Your task to perform on an android device: turn on the 12-hour format for clock Image 0: 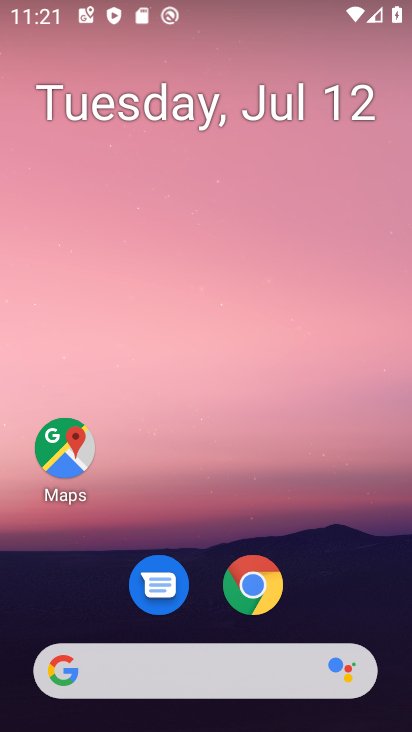
Step 0: drag from (243, 278) to (245, 15)
Your task to perform on an android device: turn on the 12-hour format for clock Image 1: 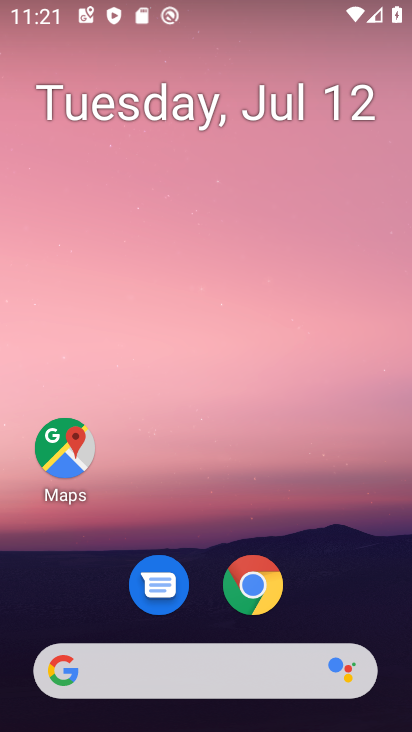
Step 1: drag from (340, 419) to (302, 19)
Your task to perform on an android device: turn on the 12-hour format for clock Image 2: 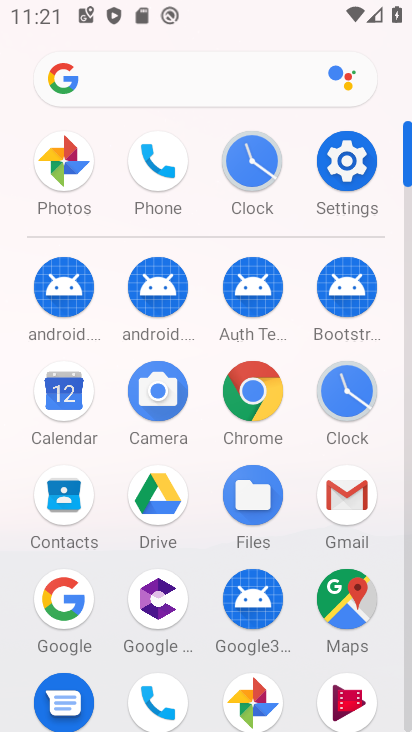
Step 2: click (251, 172)
Your task to perform on an android device: turn on the 12-hour format for clock Image 3: 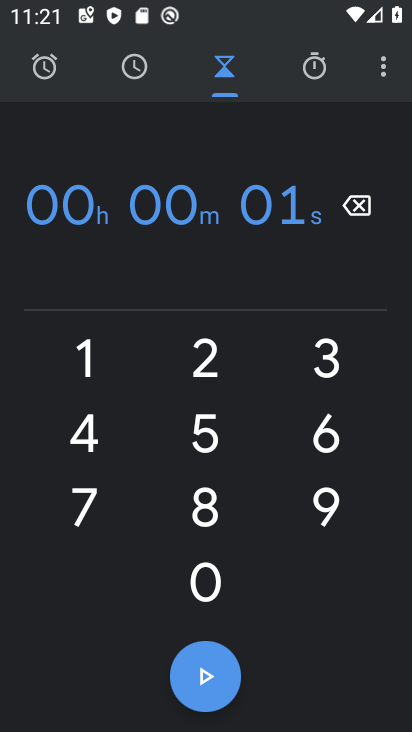
Step 3: click (387, 75)
Your task to perform on an android device: turn on the 12-hour format for clock Image 4: 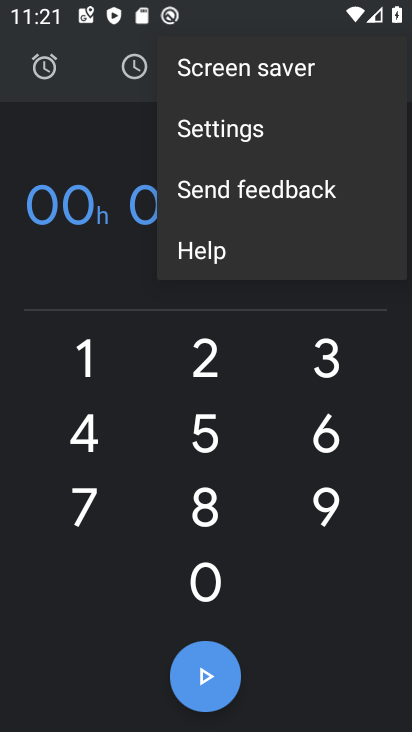
Step 4: click (263, 135)
Your task to perform on an android device: turn on the 12-hour format for clock Image 5: 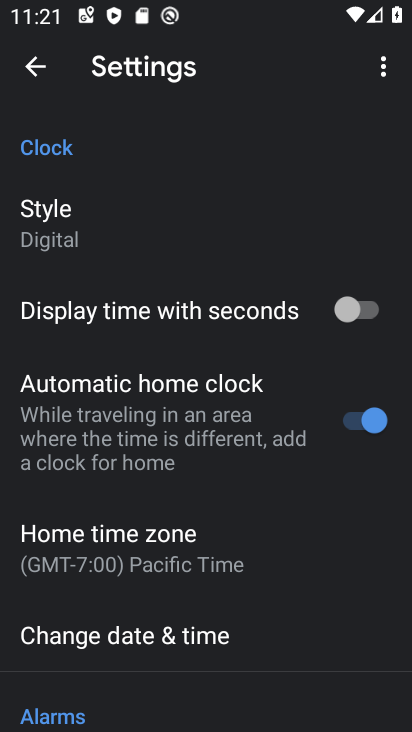
Step 5: click (191, 632)
Your task to perform on an android device: turn on the 12-hour format for clock Image 6: 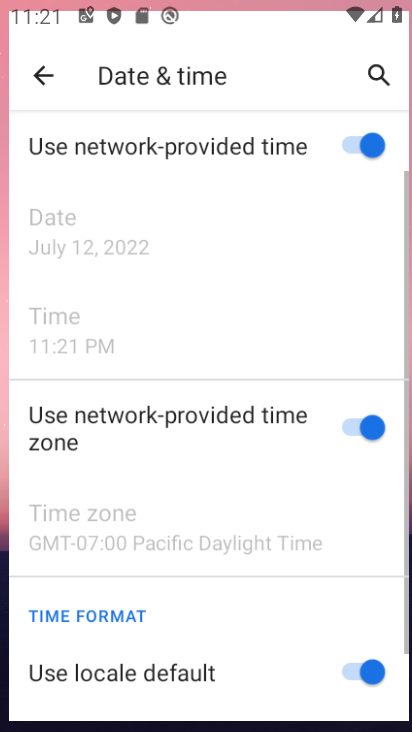
Step 6: task complete